Your task to perform on an android device: Open Wikipedia Image 0: 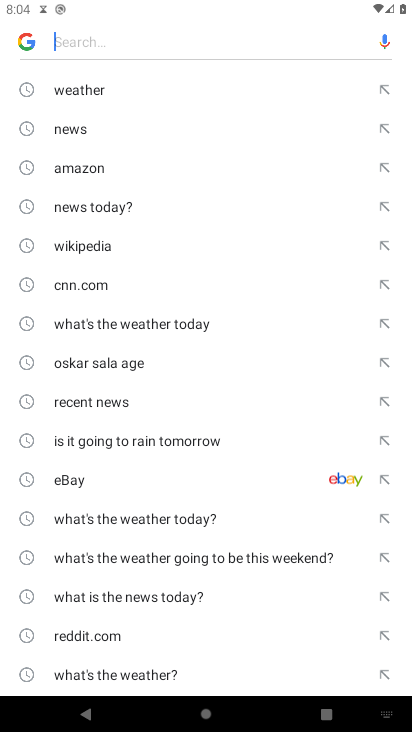
Step 0: press home button
Your task to perform on an android device: Open Wikipedia Image 1: 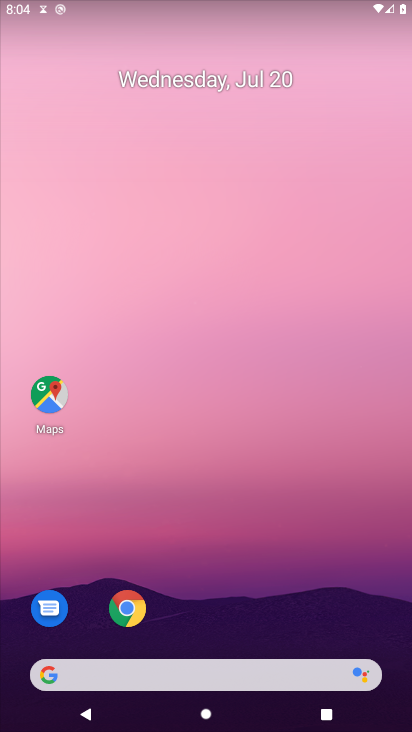
Step 1: click (116, 593)
Your task to perform on an android device: Open Wikipedia Image 2: 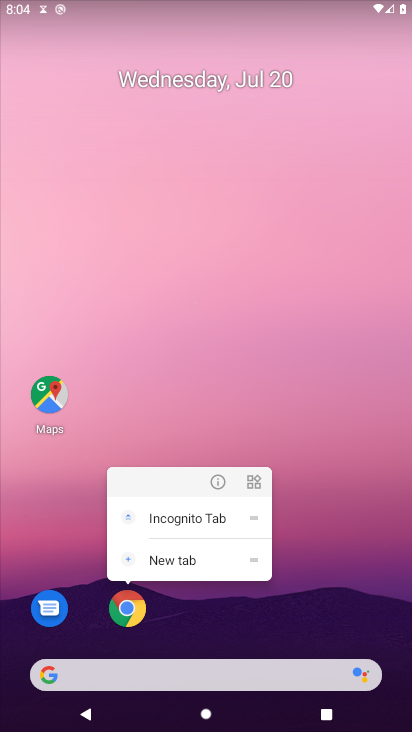
Step 2: click (116, 594)
Your task to perform on an android device: Open Wikipedia Image 3: 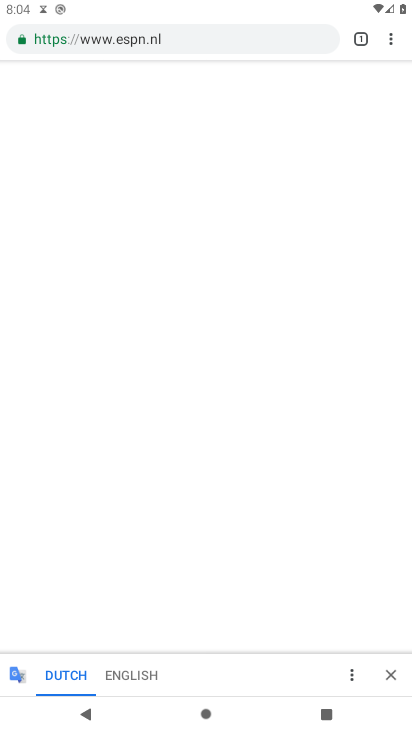
Step 3: click (287, 41)
Your task to perform on an android device: Open Wikipedia Image 4: 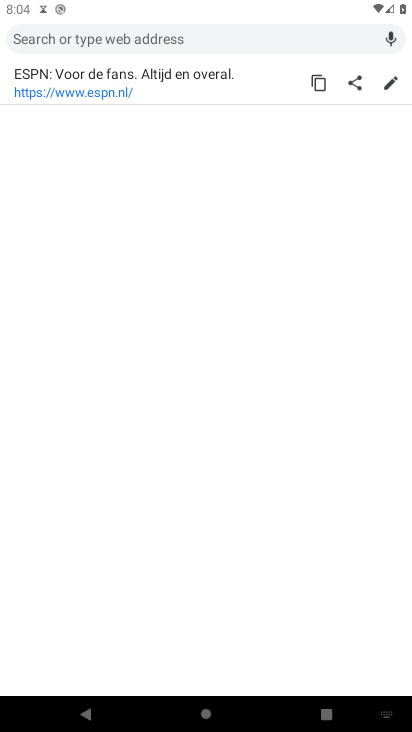
Step 4: type "wikipedia"
Your task to perform on an android device: Open Wikipedia Image 5: 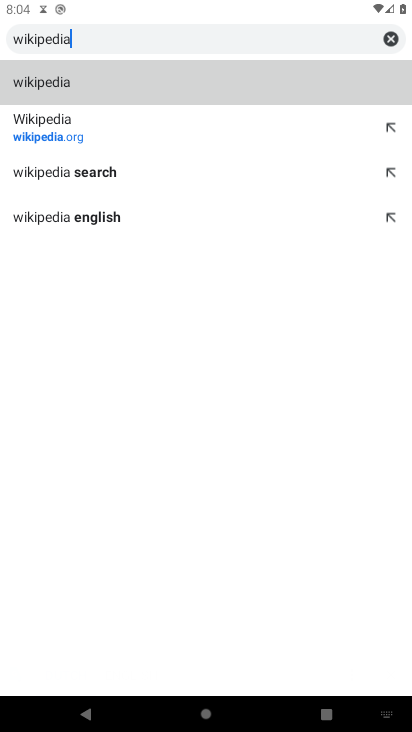
Step 5: click (66, 126)
Your task to perform on an android device: Open Wikipedia Image 6: 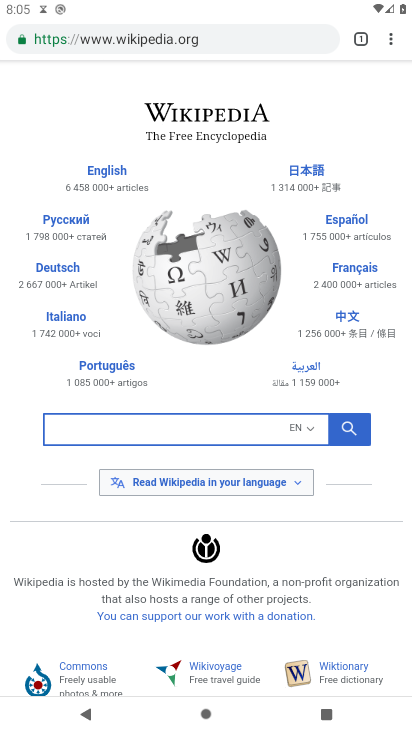
Step 6: task complete